Your task to perform on an android device: change text size in settings app Image 0: 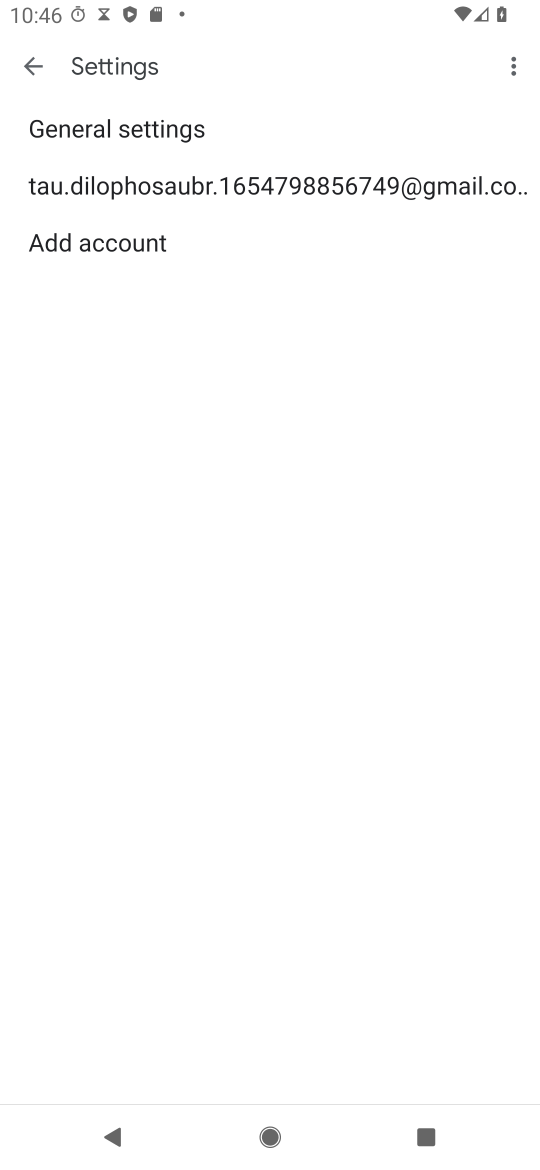
Step 0: press home button
Your task to perform on an android device: change text size in settings app Image 1: 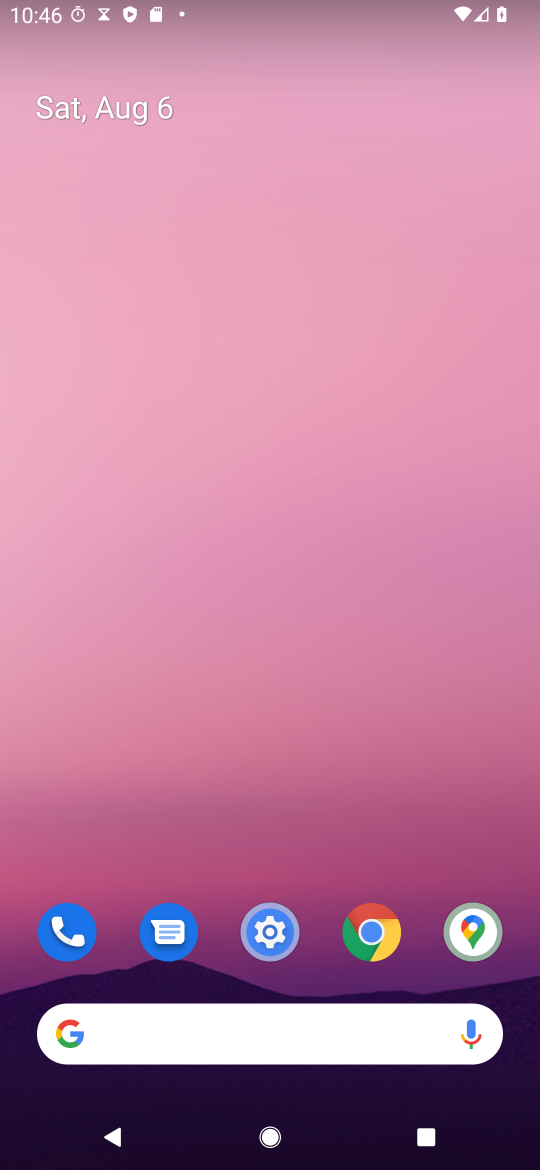
Step 1: drag from (201, 1055) to (233, 158)
Your task to perform on an android device: change text size in settings app Image 2: 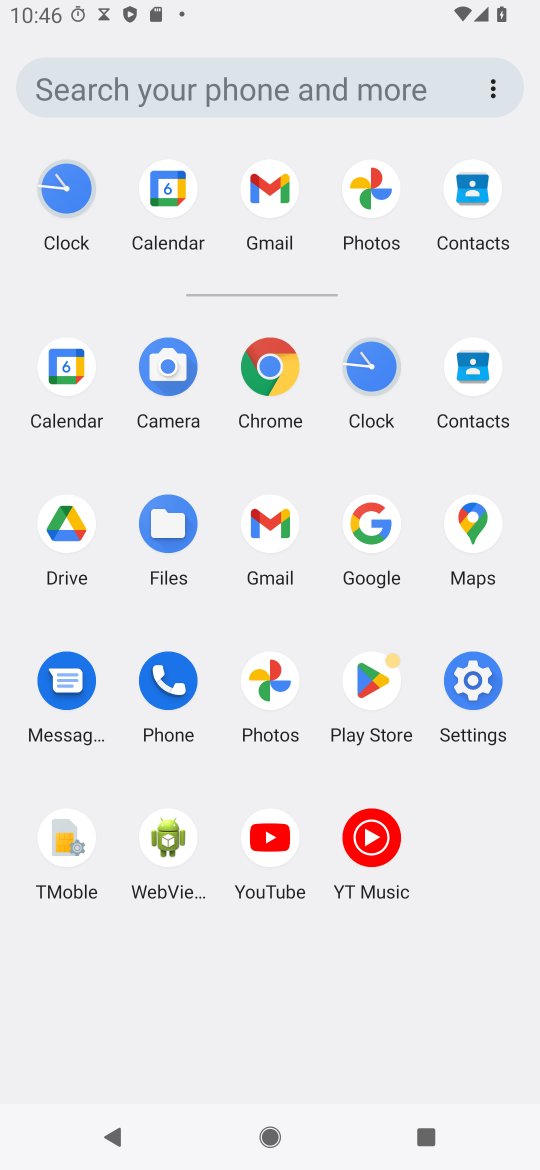
Step 2: click (472, 682)
Your task to perform on an android device: change text size in settings app Image 3: 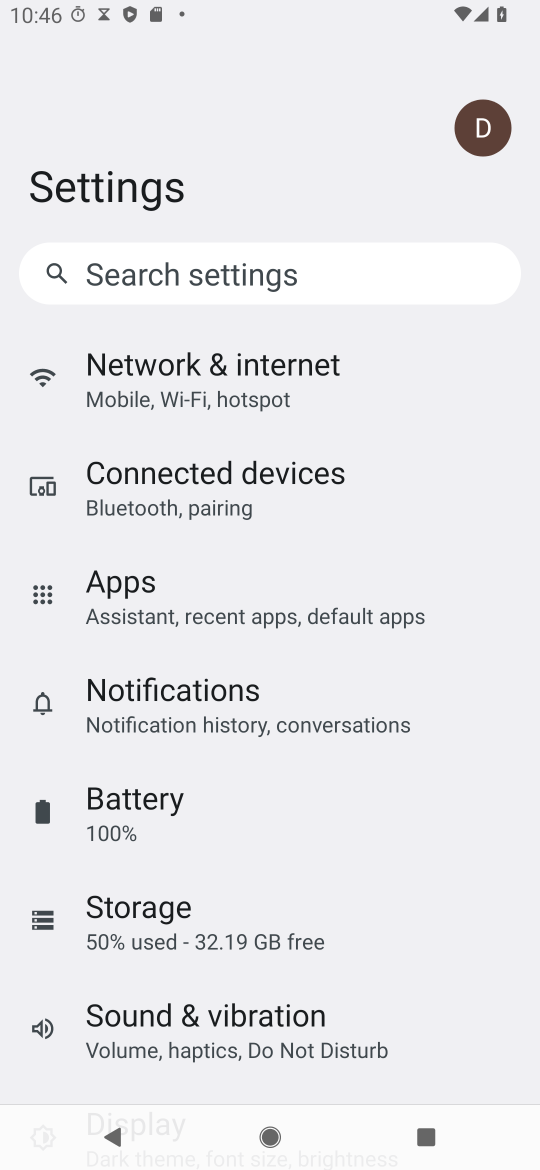
Step 3: drag from (237, 833) to (268, 483)
Your task to perform on an android device: change text size in settings app Image 4: 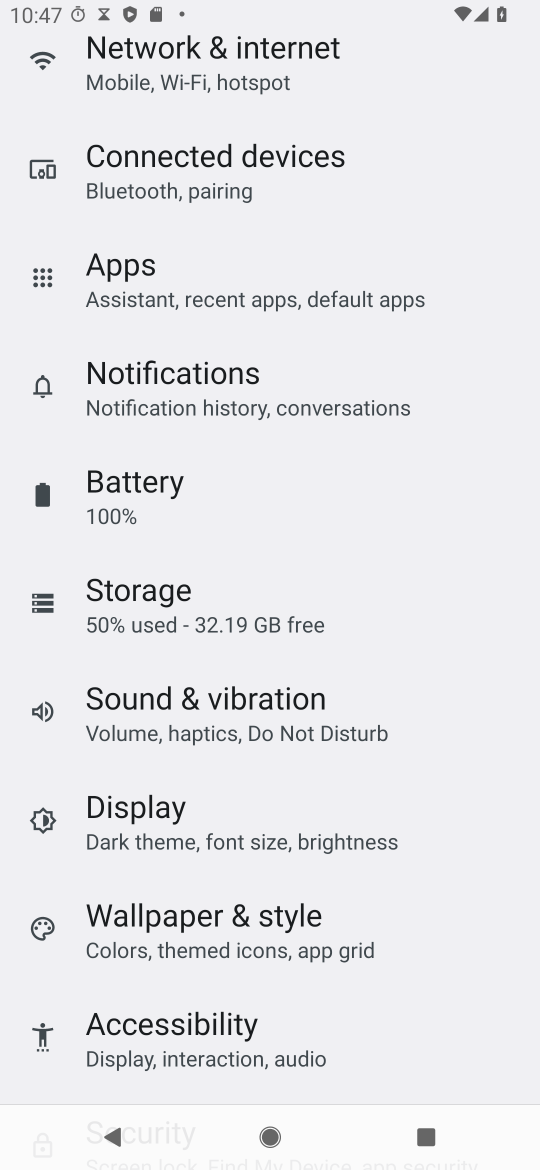
Step 4: drag from (253, 879) to (296, 709)
Your task to perform on an android device: change text size in settings app Image 5: 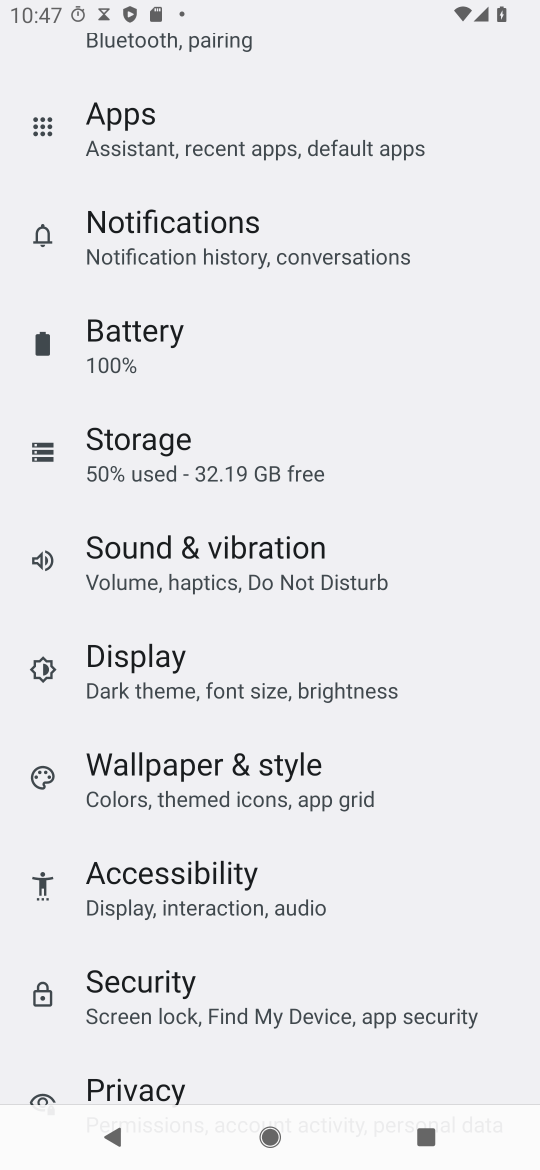
Step 5: click (213, 891)
Your task to perform on an android device: change text size in settings app Image 6: 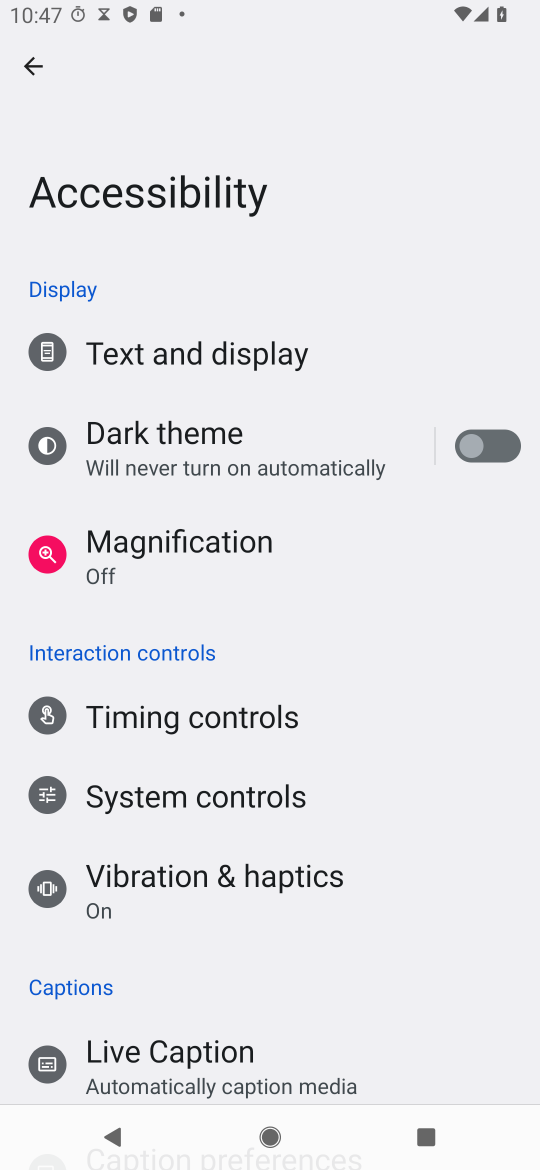
Step 6: click (184, 350)
Your task to perform on an android device: change text size in settings app Image 7: 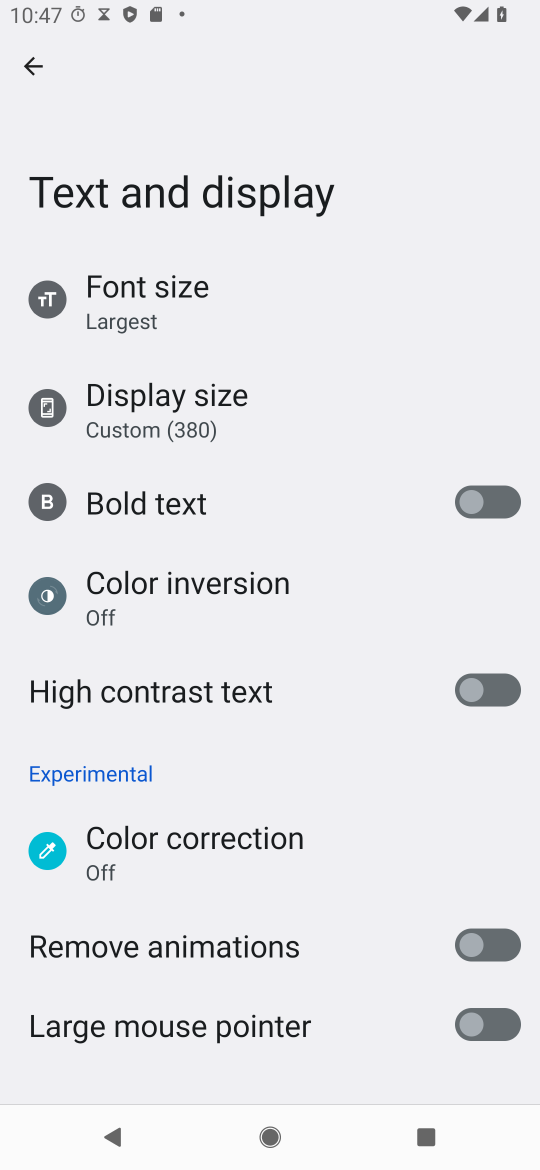
Step 7: click (164, 285)
Your task to perform on an android device: change text size in settings app Image 8: 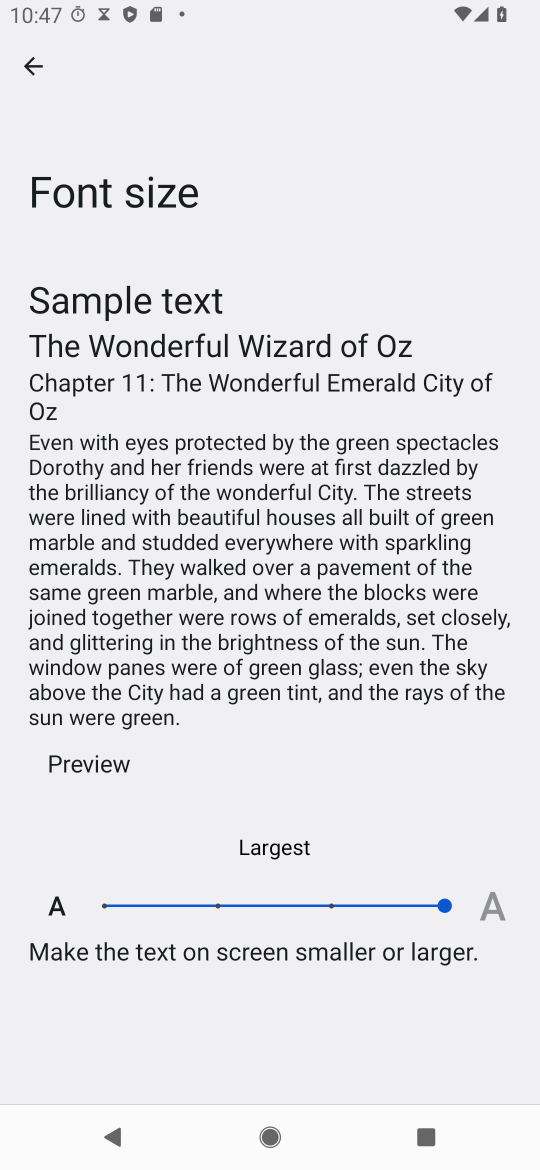
Step 8: click (329, 897)
Your task to perform on an android device: change text size in settings app Image 9: 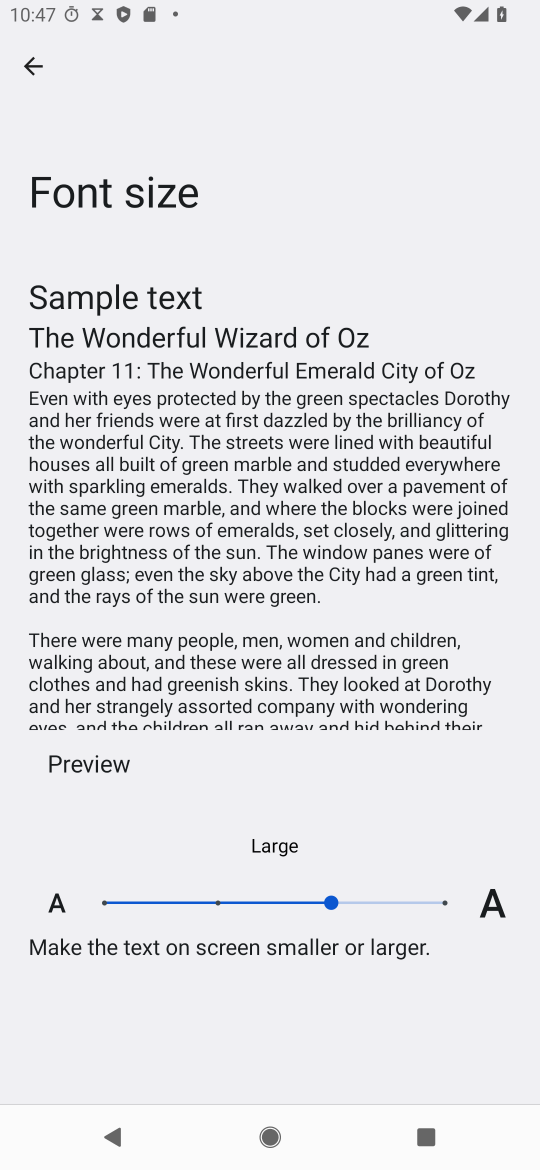
Step 9: task complete